Your task to perform on an android device: turn off wifi Image 0: 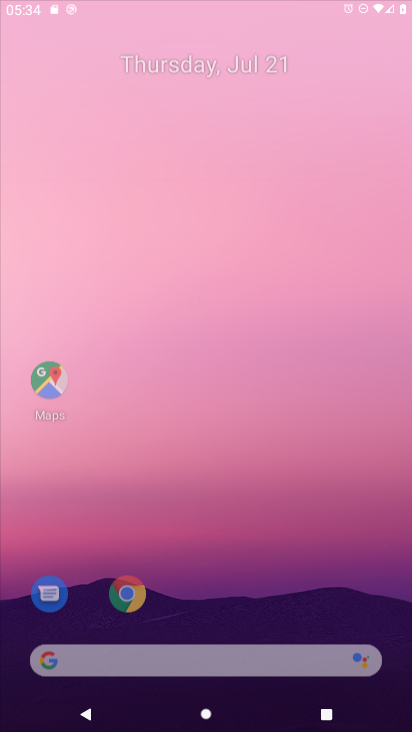
Step 0: click (342, 91)
Your task to perform on an android device: turn off wifi Image 1: 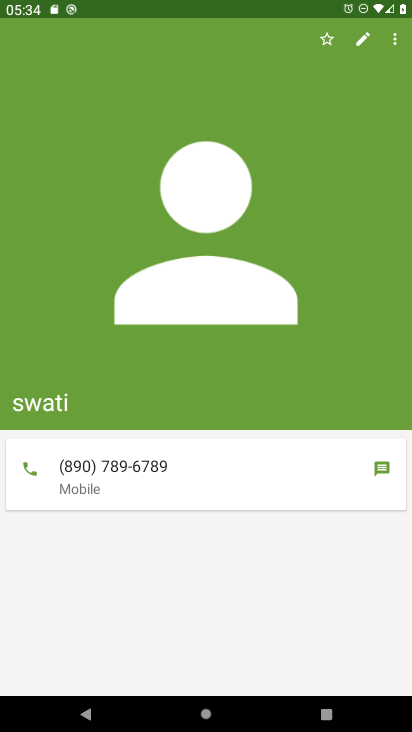
Step 1: press home button
Your task to perform on an android device: turn off wifi Image 2: 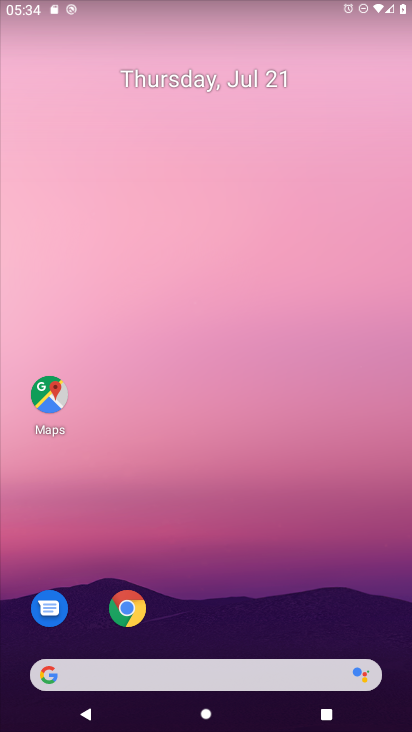
Step 2: drag from (155, 670) to (147, 50)
Your task to perform on an android device: turn off wifi Image 3: 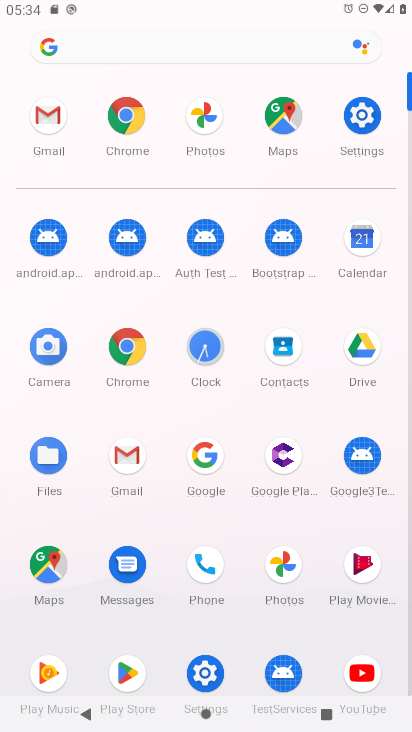
Step 3: click (358, 122)
Your task to perform on an android device: turn off wifi Image 4: 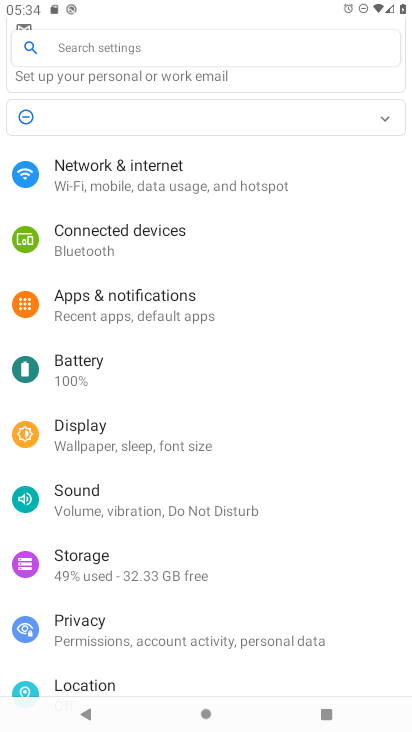
Step 4: click (156, 174)
Your task to perform on an android device: turn off wifi Image 5: 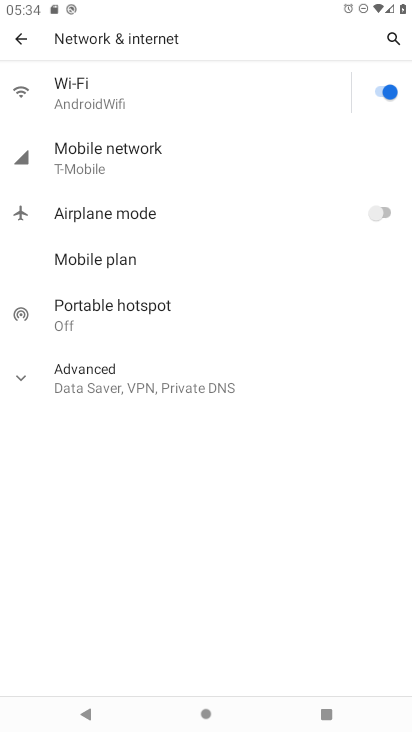
Step 5: click (383, 95)
Your task to perform on an android device: turn off wifi Image 6: 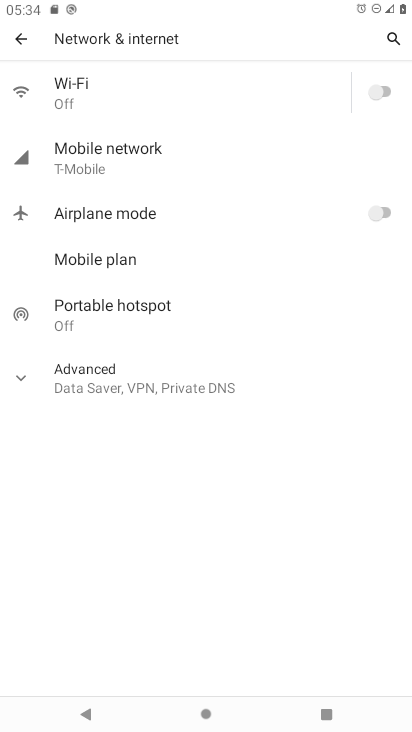
Step 6: task complete